Your task to perform on an android device: Do I have any events tomorrow? Image 0: 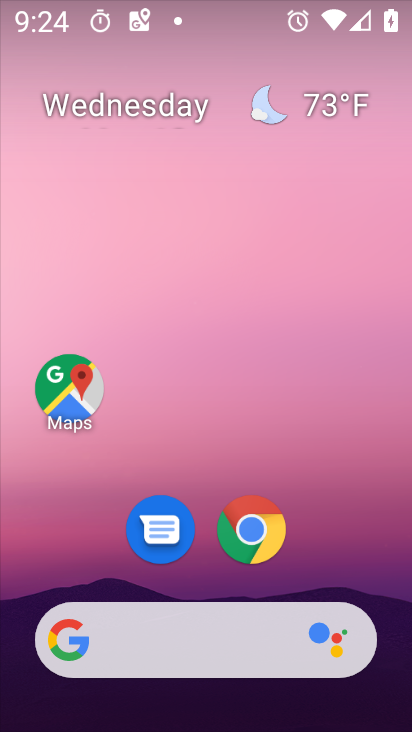
Step 0: drag from (386, 560) to (384, 281)
Your task to perform on an android device: Do I have any events tomorrow? Image 1: 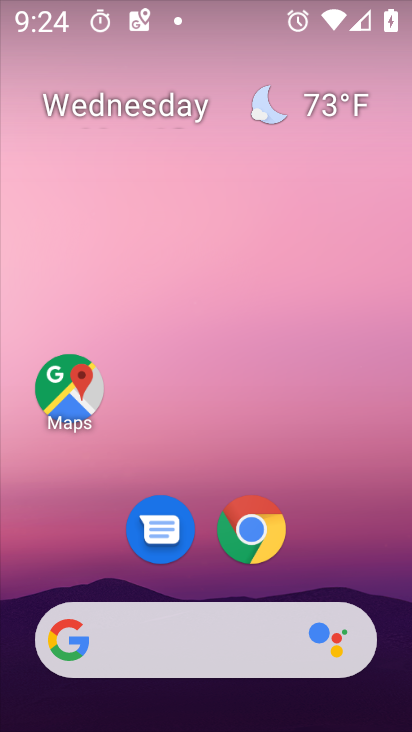
Step 1: drag from (384, 555) to (397, 240)
Your task to perform on an android device: Do I have any events tomorrow? Image 2: 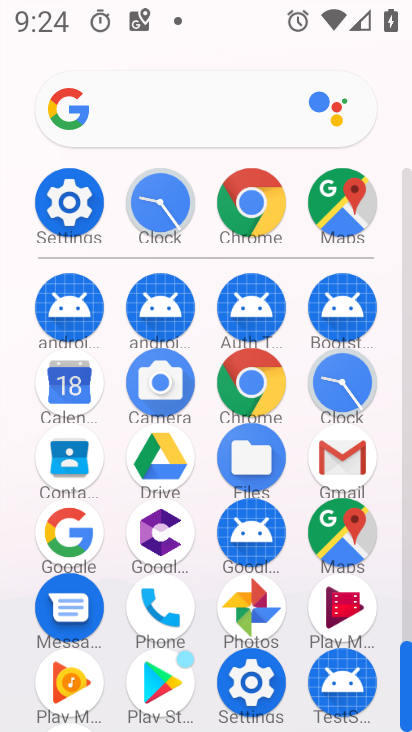
Step 2: click (82, 392)
Your task to perform on an android device: Do I have any events tomorrow? Image 3: 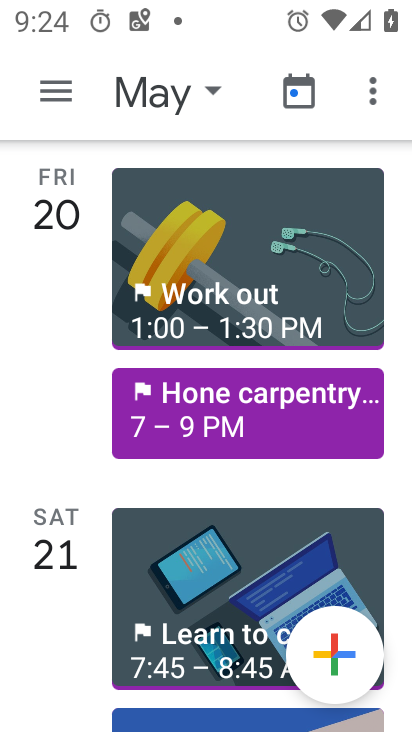
Step 3: drag from (399, 489) to (396, 375)
Your task to perform on an android device: Do I have any events tomorrow? Image 4: 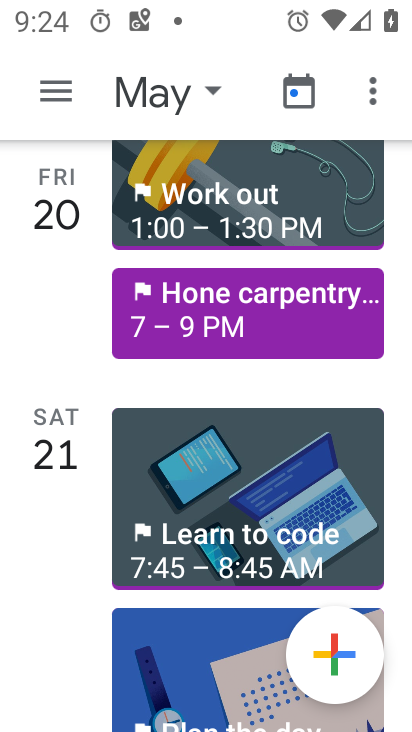
Step 4: click (235, 215)
Your task to perform on an android device: Do I have any events tomorrow? Image 5: 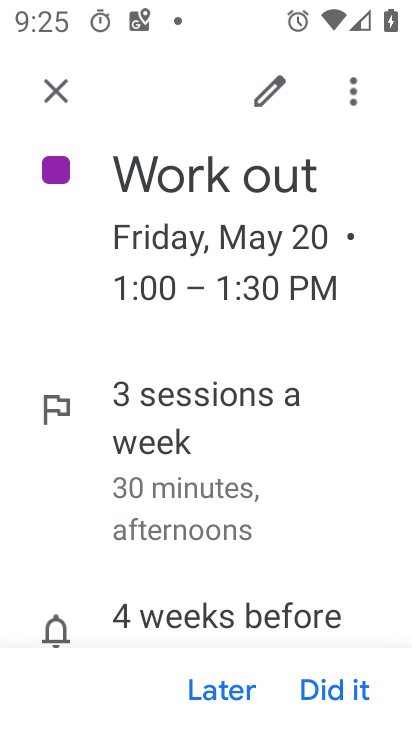
Step 5: task complete